Your task to perform on an android device: turn off notifications settings in the gmail app Image 0: 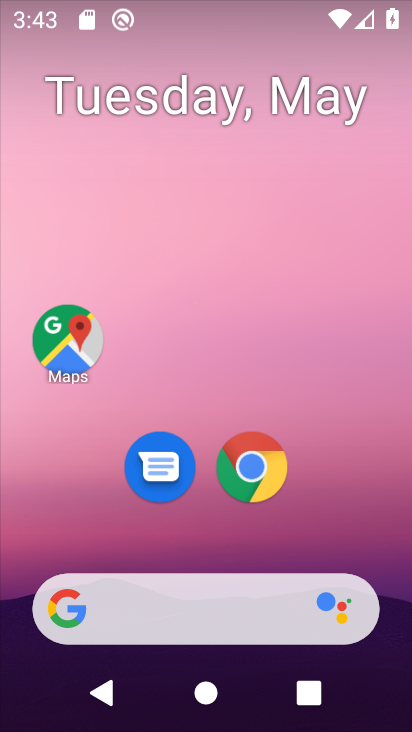
Step 0: drag from (287, 537) to (205, 14)
Your task to perform on an android device: turn off notifications settings in the gmail app Image 1: 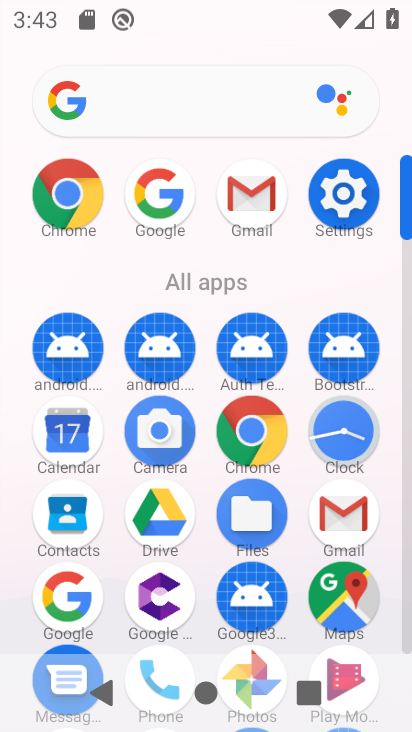
Step 1: click (254, 214)
Your task to perform on an android device: turn off notifications settings in the gmail app Image 2: 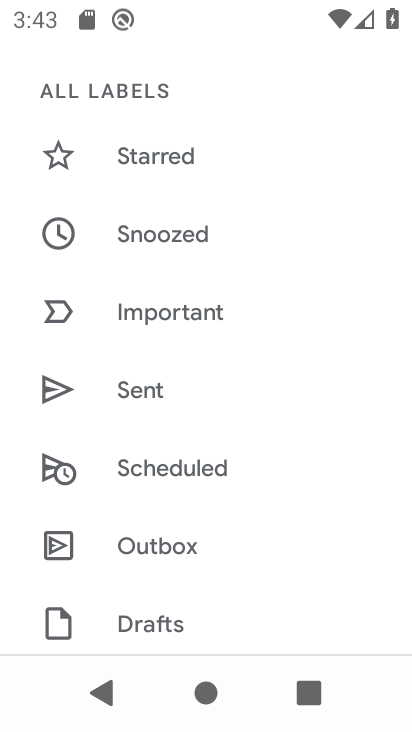
Step 2: press back button
Your task to perform on an android device: turn off notifications settings in the gmail app Image 3: 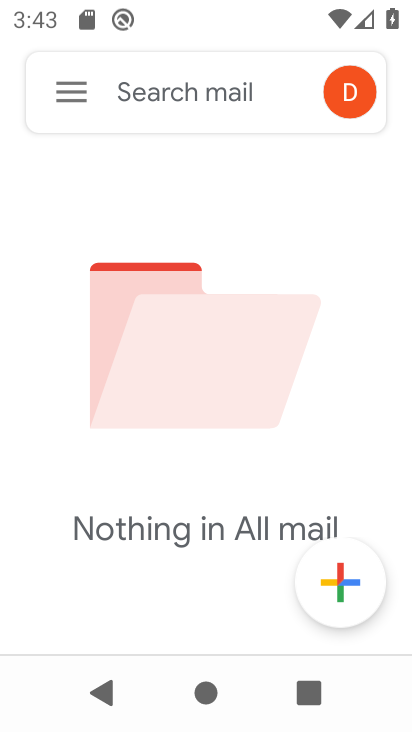
Step 3: click (77, 100)
Your task to perform on an android device: turn off notifications settings in the gmail app Image 4: 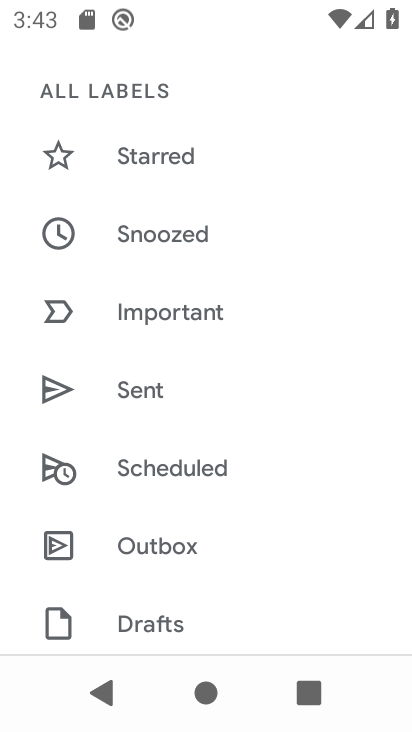
Step 4: drag from (240, 567) to (164, 29)
Your task to perform on an android device: turn off notifications settings in the gmail app Image 5: 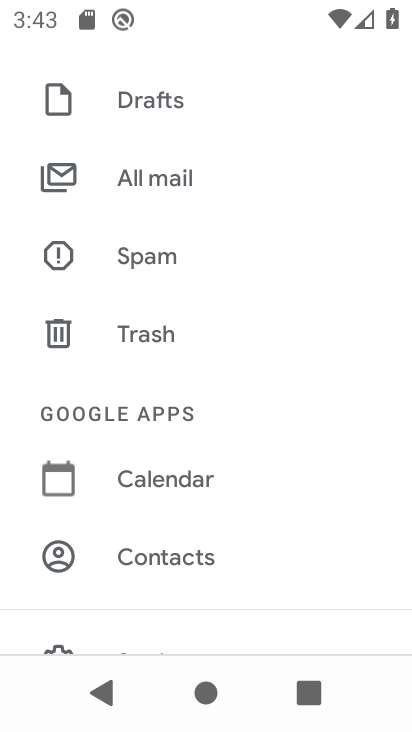
Step 5: drag from (203, 583) to (176, 106)
Your task to perform on an android device: turn off notifications settings in the gmail app Image 6: 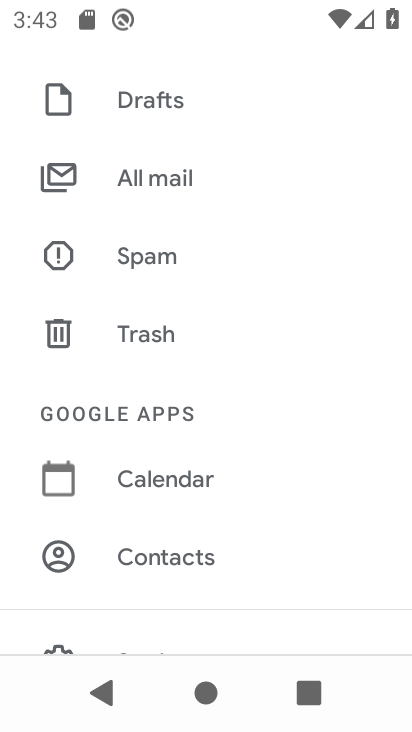
Step 6: drag from (181, 553) to (216, 188)
Your task to perform on an android device: turn off notifications settings in the gmail app Image 7: 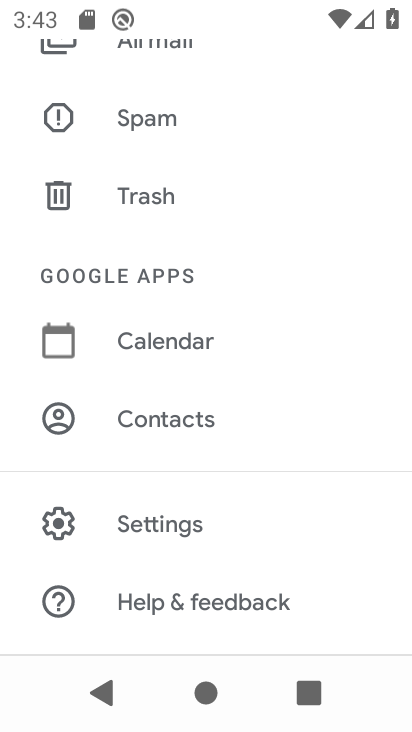
Step 7: click (172, 529)
Your task to perform on an android device: turn off notifications settings in the gmail app Image 8: 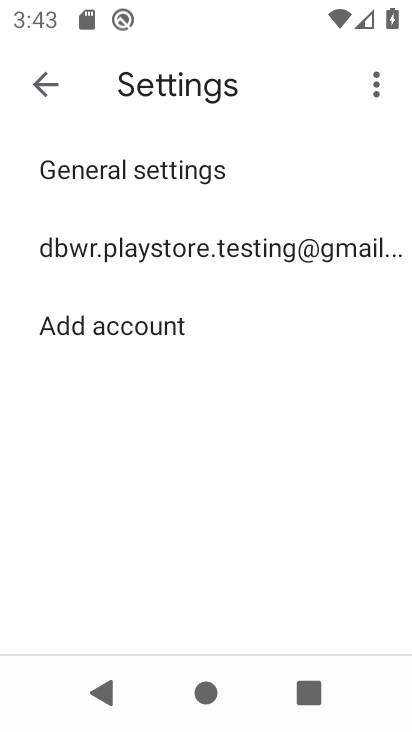
Step 8: click (194, 257)
Your task to perform on an android device: turn off notifications settings in the gmail app Image 9: 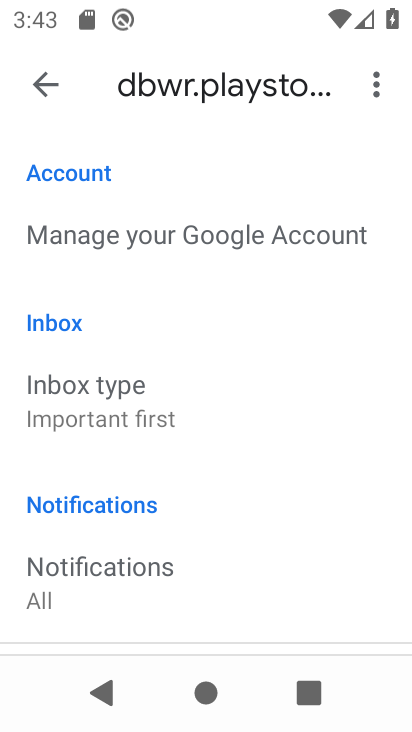
Step 9: click (35, 567)
Your task to perform on an android device: turn off notifications settings in the gmail app Image 10: 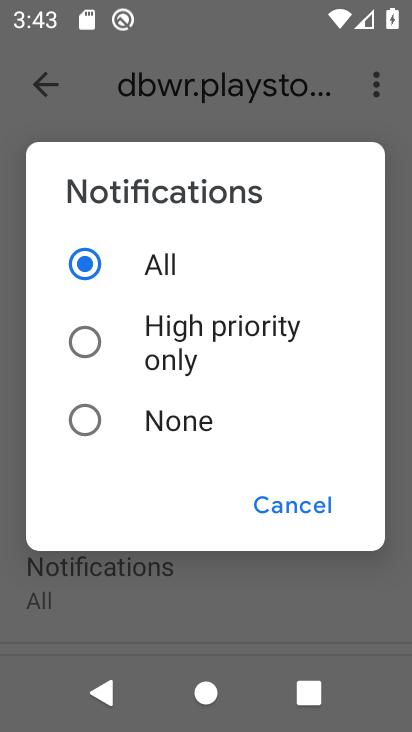
Step 10: click (110, 413)
Your task to perform on an android device: turn off notifications settings in the gmail app Image 11: 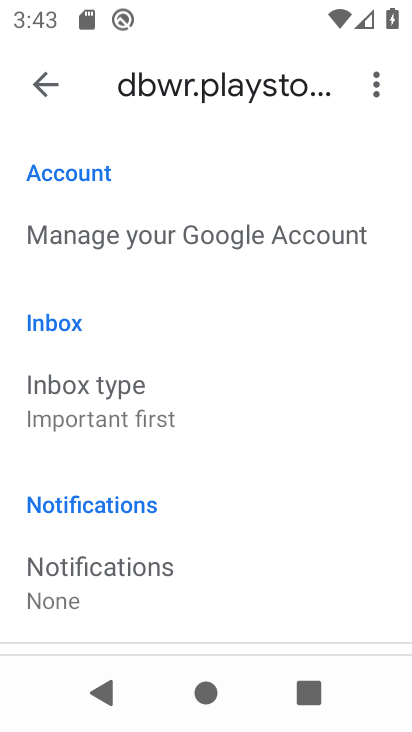
Step 11: task complete